Your task to perform on an android device: Go to battery settings Image 0: 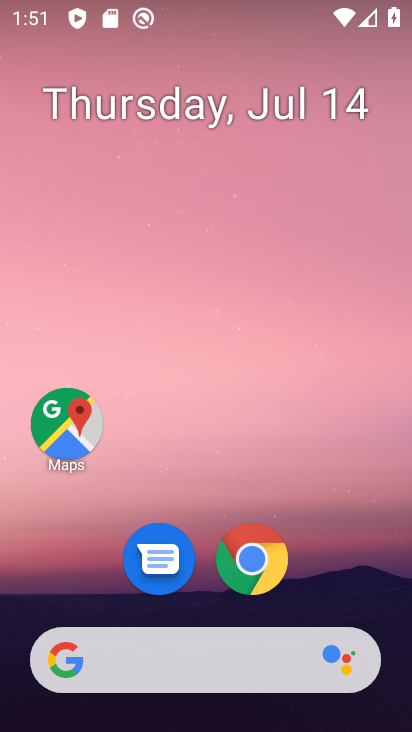
Step 0: click (317, 426)
Your task to perform on an android device: Go to battery settings Image 1: 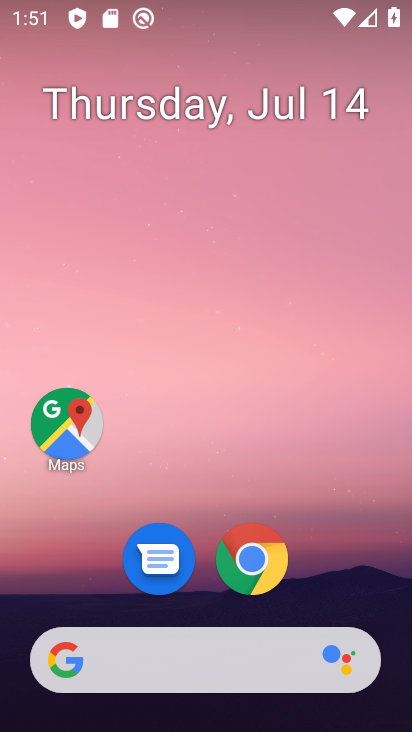
Step 1: drag from (235, 621) to (299, 40)
Your task to perform on an android device: Go to battery settings Image 2: 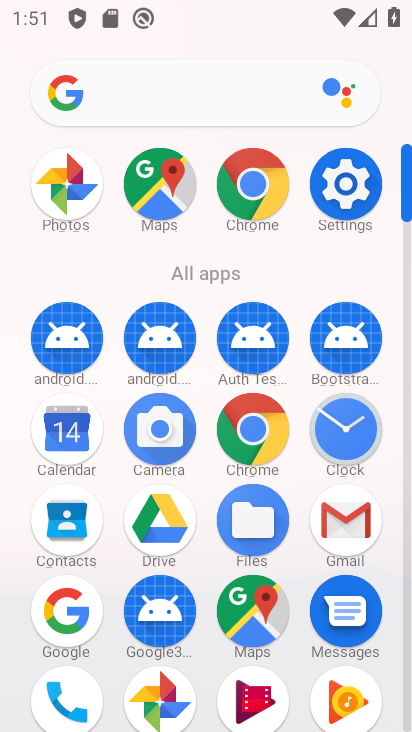
Step 2: click (348, 187)
Your task to perform on an android device: Go to battery settings Image 3: 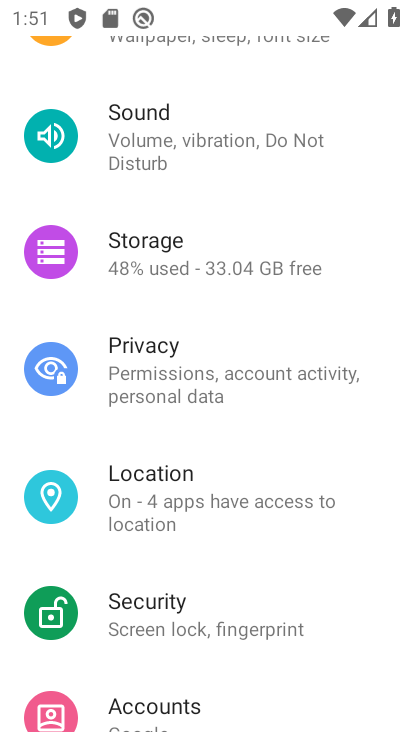
Step 3: drag from (214, 339) to (243, 625)
Your task to perform on an android device: Go to battery settings Image 4: 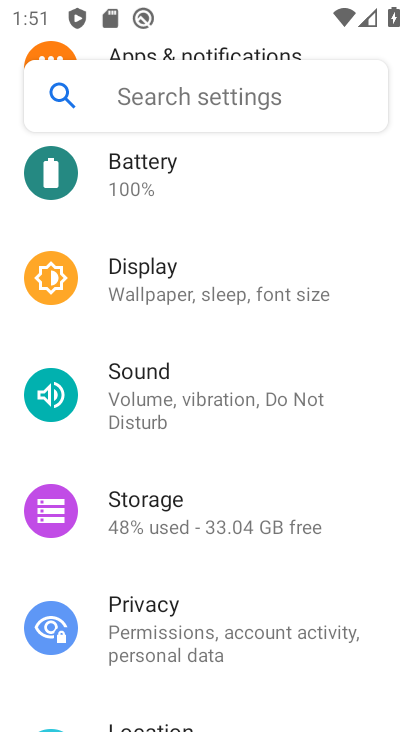
Step 4: click (174, 197)
Your task to perform on an android device: Go to battery settings Image 5: 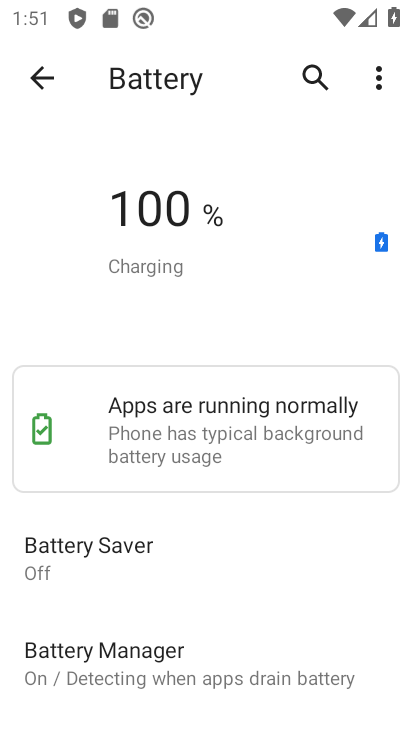
Step 5: task complete